Your task to perform on an android device: Open Google Chrome Image 0: 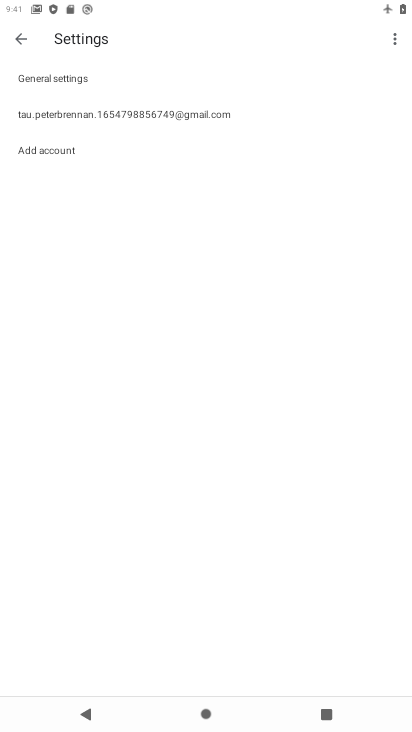
Step 0: press home button
Your task to perform on an android device: Open Google Chrome Image 1: 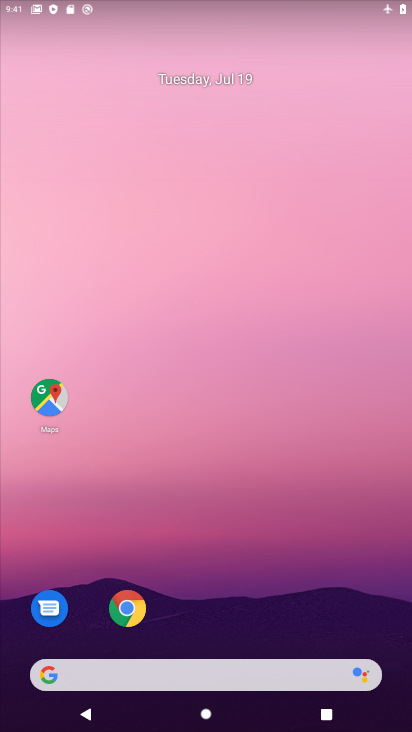
Step 1: drag from (259, 622) to (248, 208)
Your task to perform on an android device: Open Google Chrome Image 2: 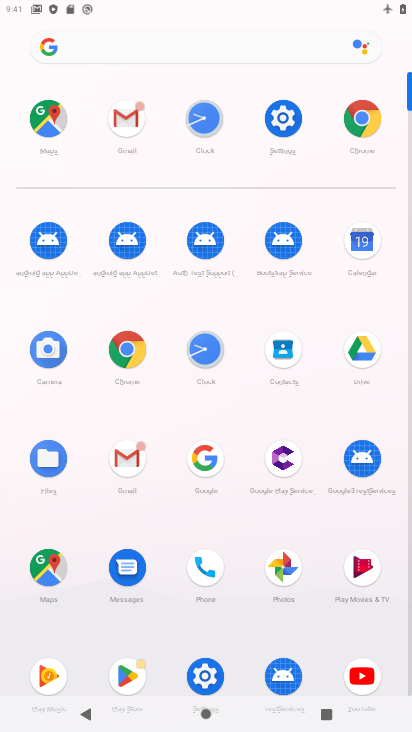
Step 2: click (364, 124)
Your task to perform on an android device: Open Google Chrome Image 3: 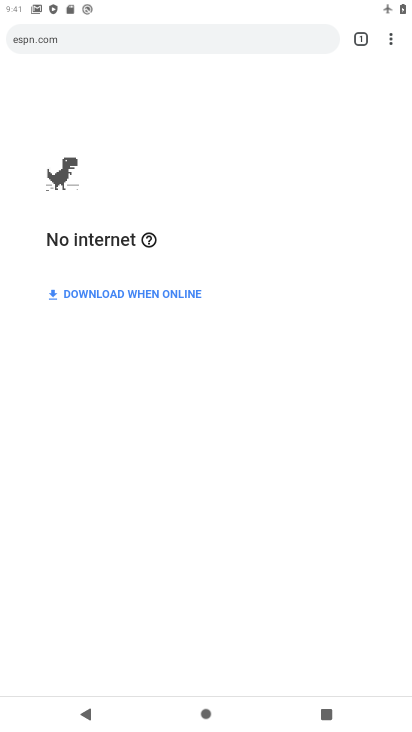
Step 3: task complete